Your task to perform on an android device: Open location settings Image 0: 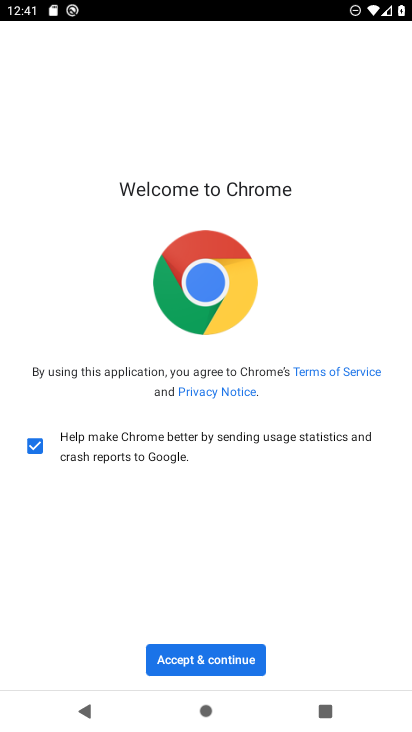
Step 0: press home button
Your task to perform on an android device: Open location settings Image 1: 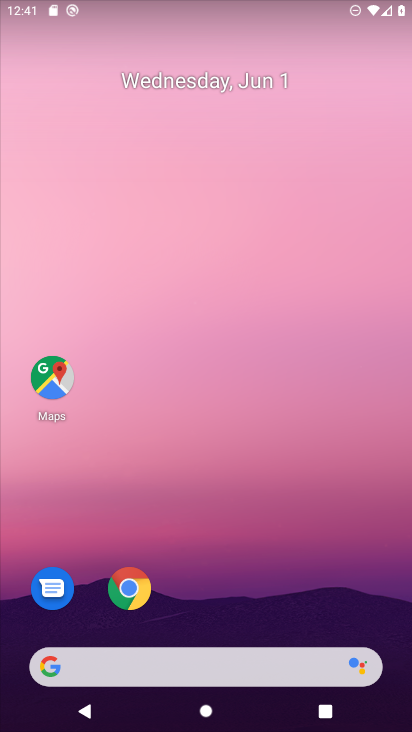
Step 1: drag from (193, 533) to (263, 190)
Your task to perform on an android device: Open location settings Image 2: 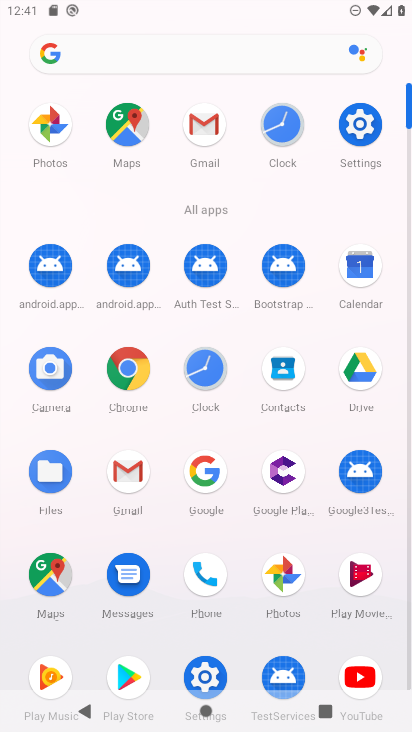
Step 2: drag from (191, 601) to (254, 320)
Your task to perform on an android device: Open location settings Image 3: 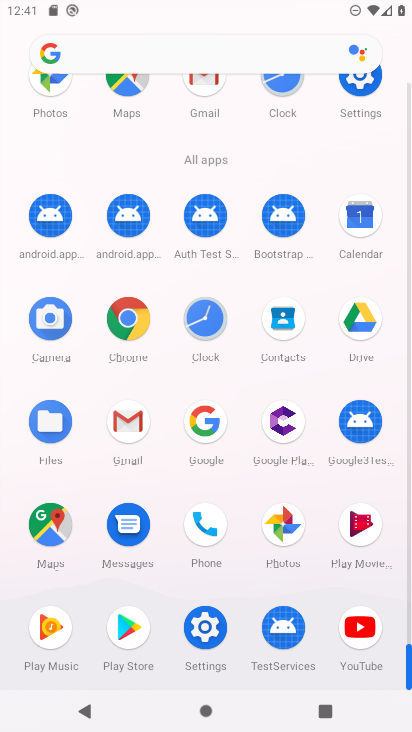
Step 3: click (205, 619)
Your task to perform on an android device: Open location settings Image 4: 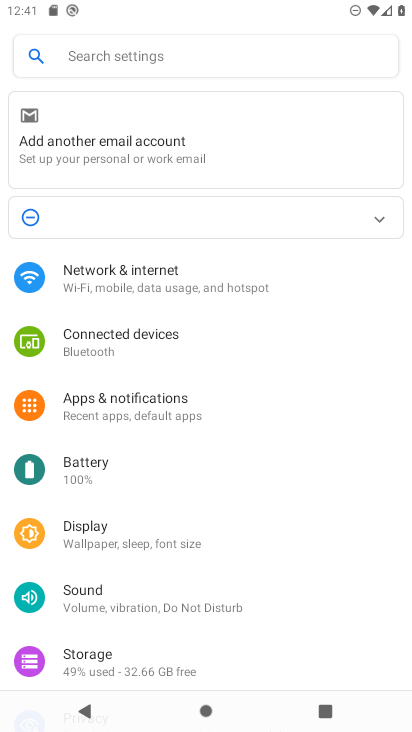
Step 4: drag from (200, 585) to (272, 252)
Your task to perform on an android device: Open location settings Image 5: 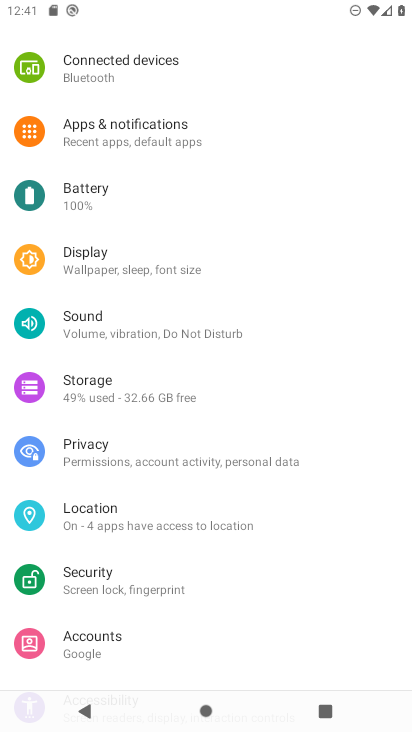
Step 5: click (133, 522)
Your task to perform on an android device: Open location settings Image 6: 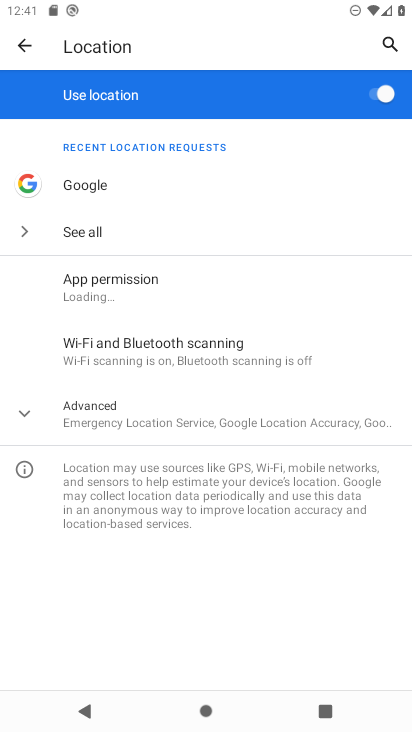
Step 6: task complete